Your task to perform on an android device: turn off notifications settings in the gmail app Image 0: 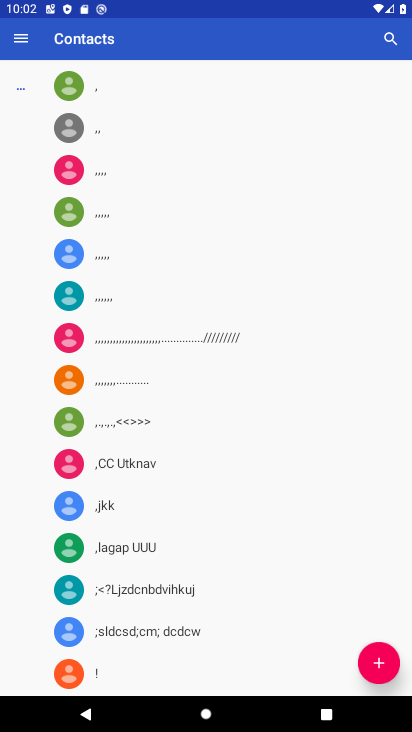
Step 0: press back button
Your task to perform on an android device: turn off notifications settings in the gmail app Image 1: 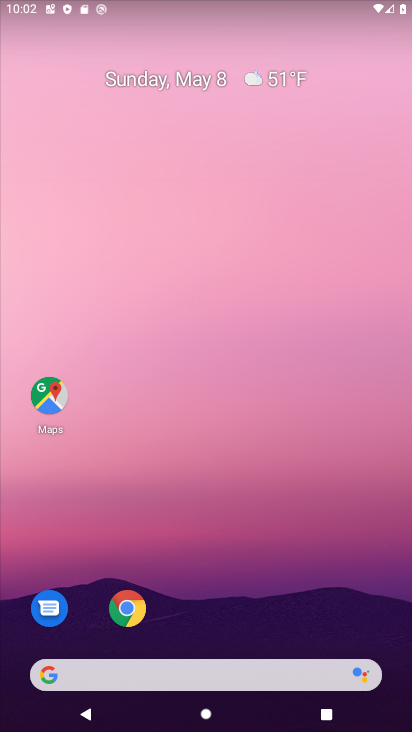
Step 1: drag from (227, 654) to (265, 338)
Your task to perform on an android device: turn off notifications settings in the gmail app Image 2: 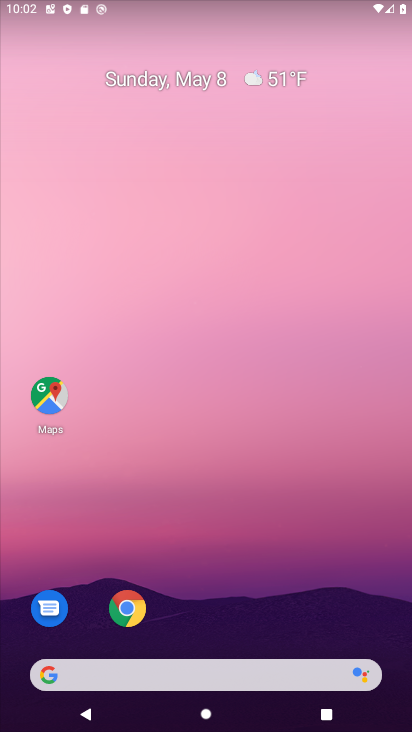
Step 2: drag from (211, 656) to (301, 336)
Your task to perform on an android device: turn off notifications settings in the gmail app Image 3: 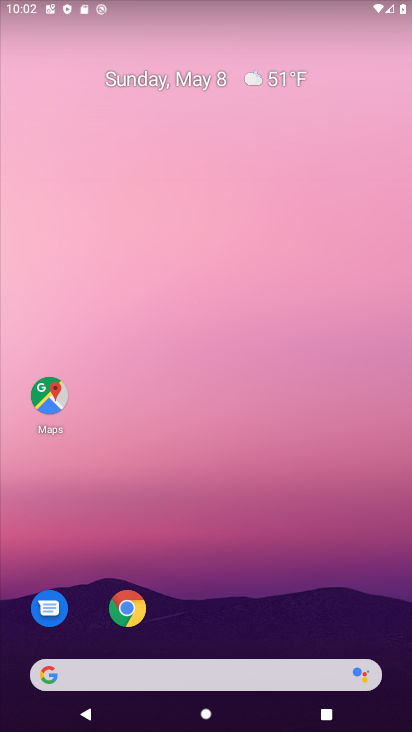
Step 3: drag from (205, 680) to (255, 503)
Your task to perform on an android device: turn off notifications settings in the gmail app Image 4: 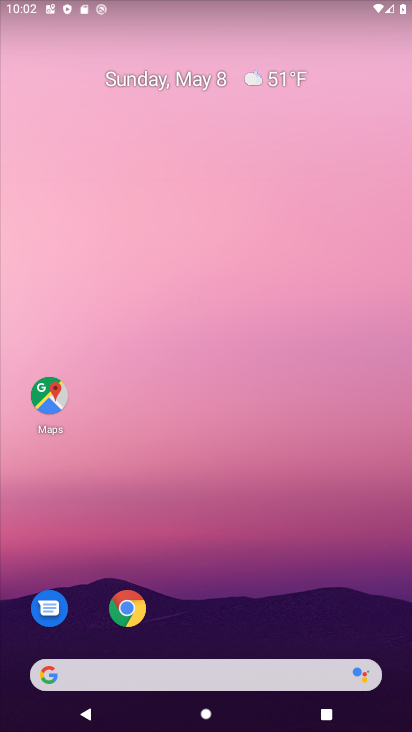
Step 4: drag from (222, 651) to (276, 245)
Your task to perform on an android device: turn off notifications settings in the gmail app Image 5: 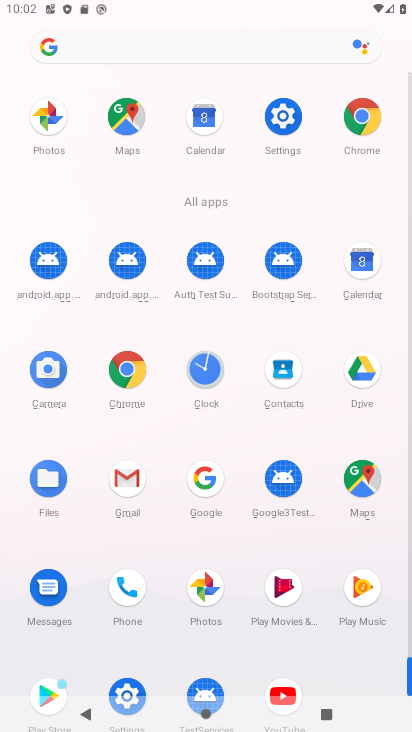
Step 5: click (121, 488)
Your task to perform on an android device: turn off notifications settings in the gmail app Image 6: 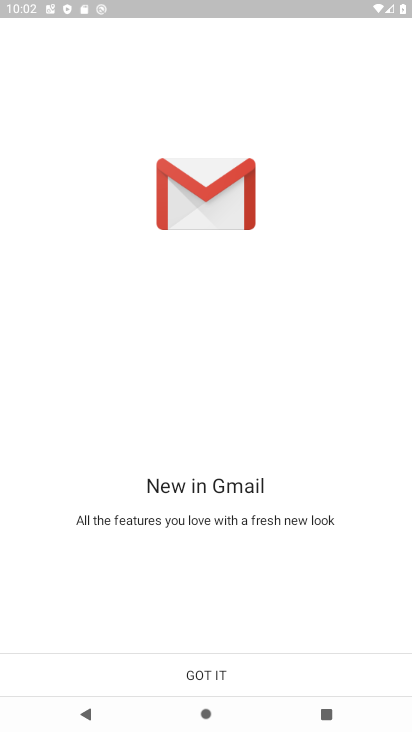
Step 6: click (299, 680)
Your task to perform on an android device: turn off notifications settings in the gmail app Image 7: 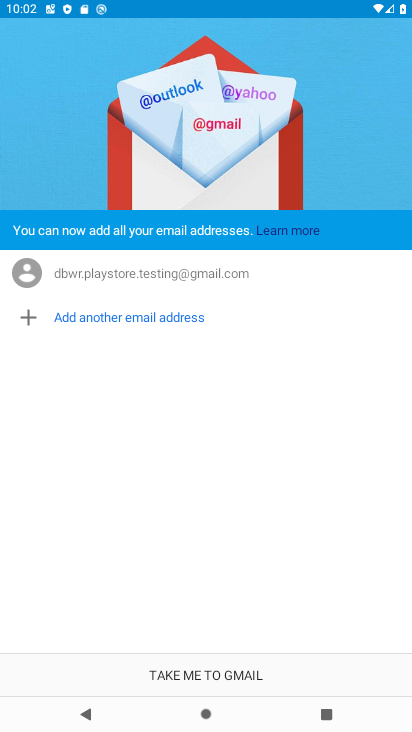
Step 7: click (299, 680)
Your task to perform on an android device: turn off notifications settings in the gmail app Image 8: 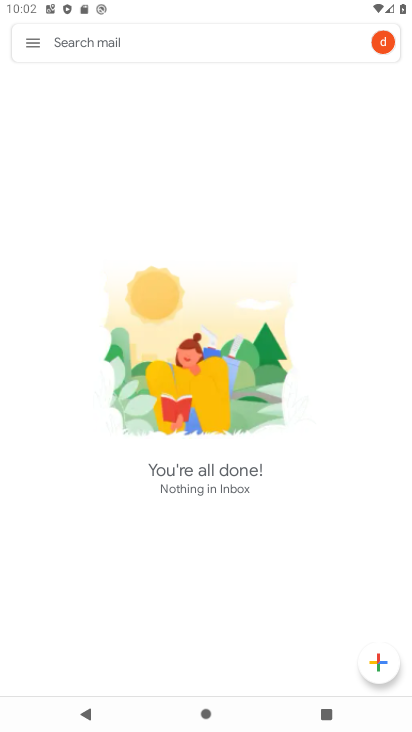
Step 8: click (26, 45)
Your task to perform on an android device: turn off notifications settings in the gmail app Image 9: 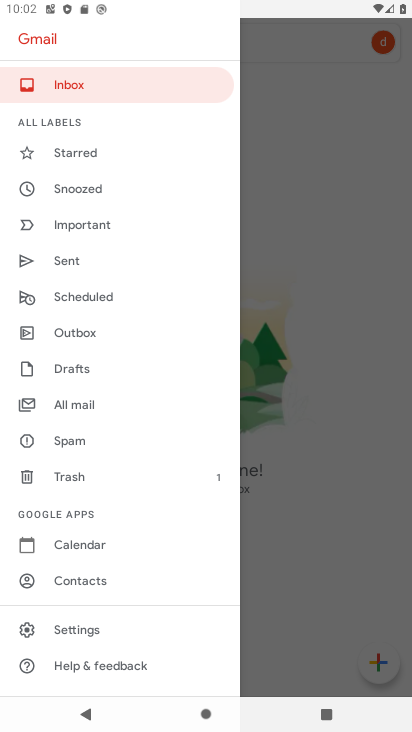
Step 9: click (162, 634)
Your task to perform on an android device: turn off notifications settings in the gmail app Image 10: 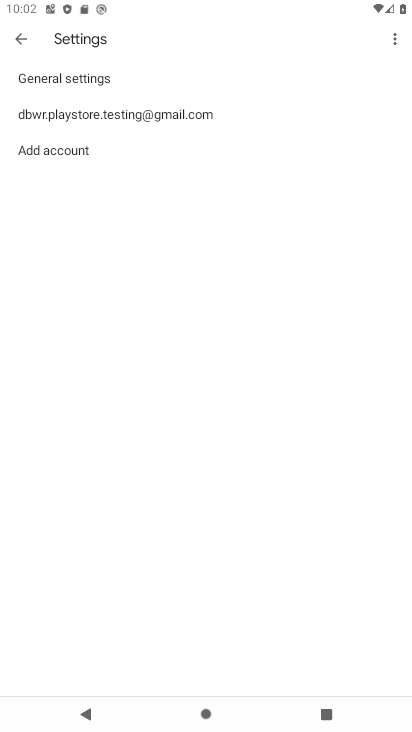
Step 10: click (294, 118)
Your task to perform on an android device: turn off notifications settings in the gmail app Image 11: 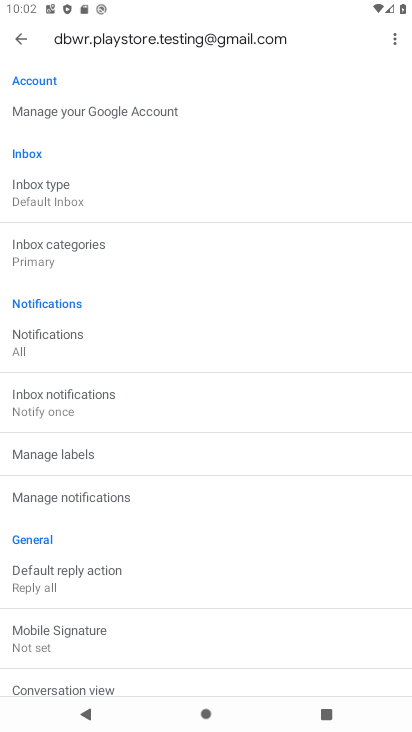
Step 11: click (179, 491)
Your task to perform on an android device: turn off notifications settings in the gmail app Image 12: 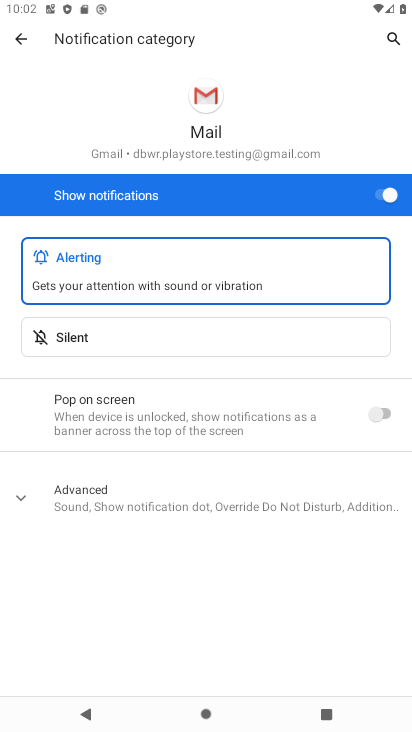
Step 12: click (381, 191)
Your task to perform on an android device: turn off notifications settings in the gmail app Image 13: 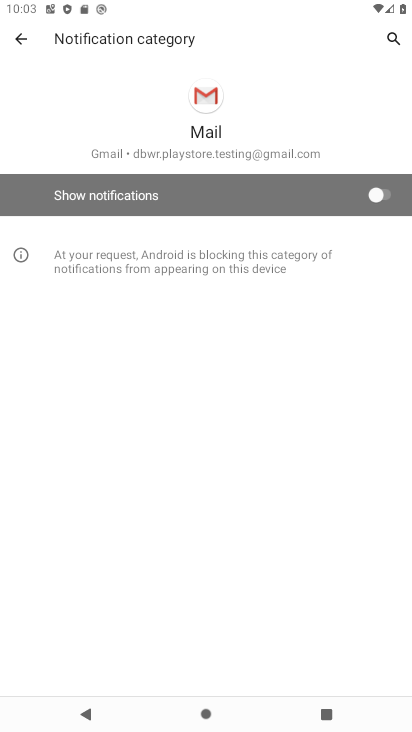
Step 13: task complete